Your task to perform on an android device: Open my contact list Image 0: 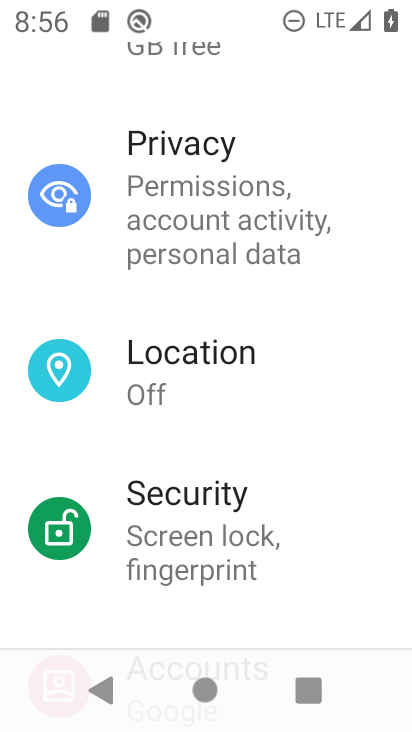
Step 0: press home button
Your task to perform on an android device: Open my contact list Image 1: 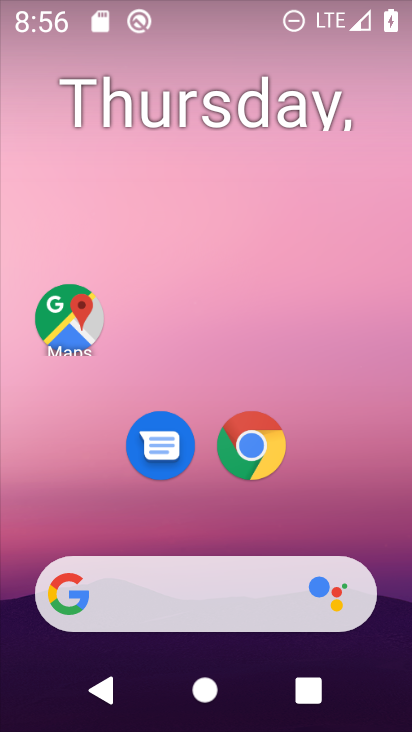
Step 1: drag from (408, 642) to (306, 79)
Your task to perform on an android device: Open my contact list Image 2: 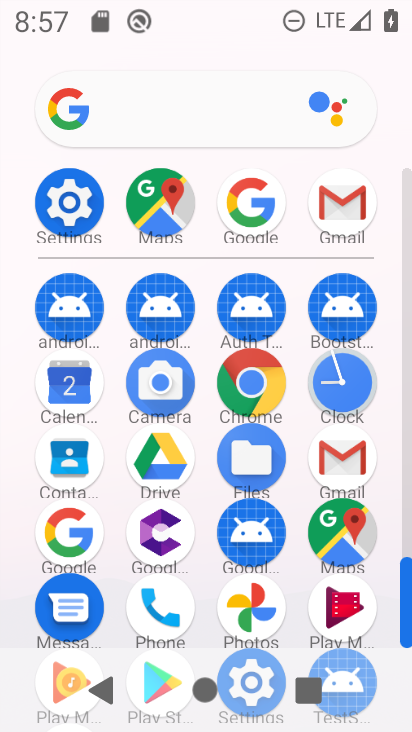
Step 2: click (71, 457)
Your task to perform on an android device: Open my contact list Image 3: 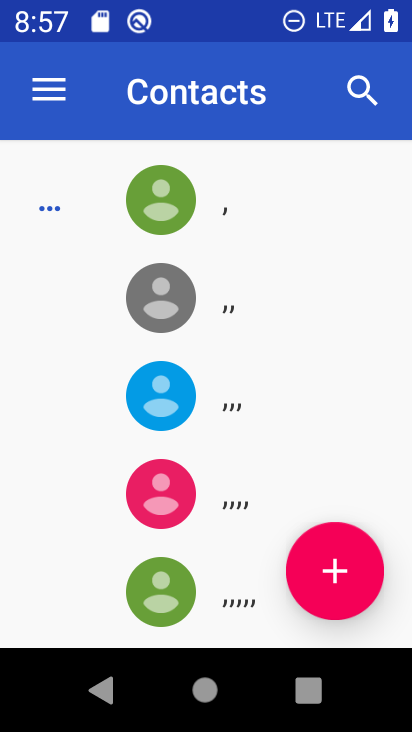
Step 3: task complete